Your task to perform on an android device: turn off wifi Image 0: 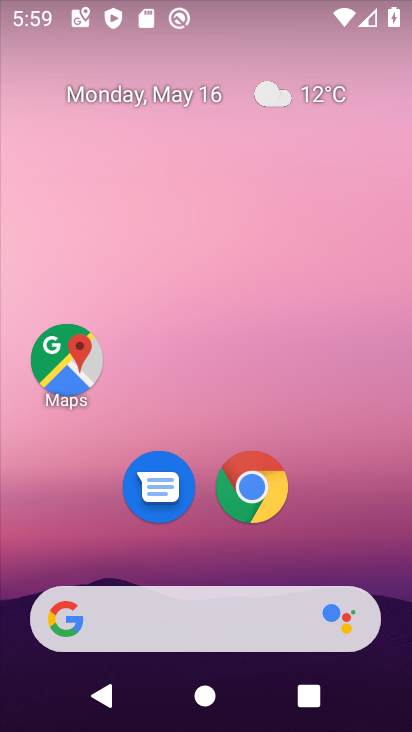
Step 0: drag from (348, 533) to (268, 112)
Your task to perform on an android device: turn off wifi Image 1: 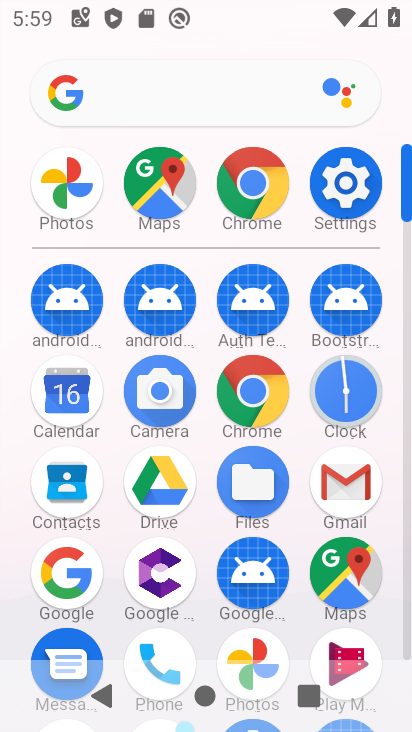
Step 1: click (339, 193)
Your task to perform on an android device: turn off wifi Image 2: 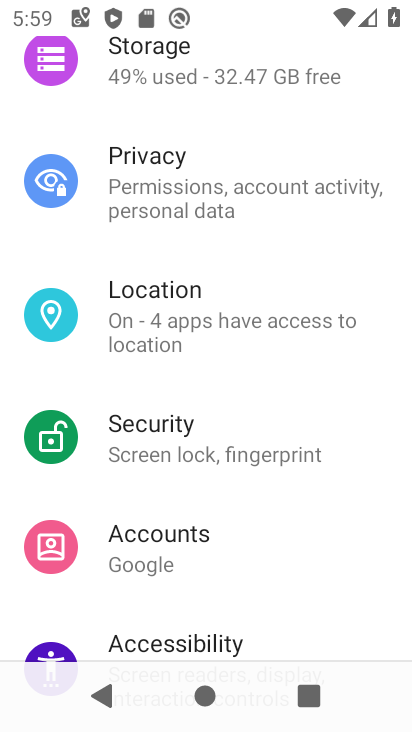
Step 2: drag from (236, 169) to (273, 525)
Your task to perform on an android device: turn off wifi Image 3: 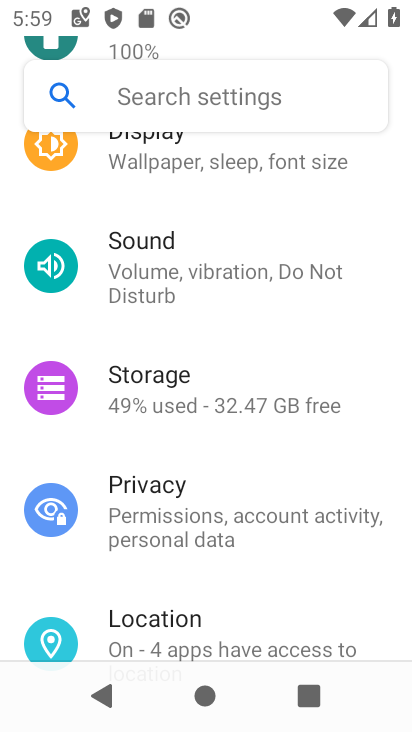
Step 3: drag from (234, 194) to (269, 537)
Your task to perform on an android device: turn off wifi Image 4: 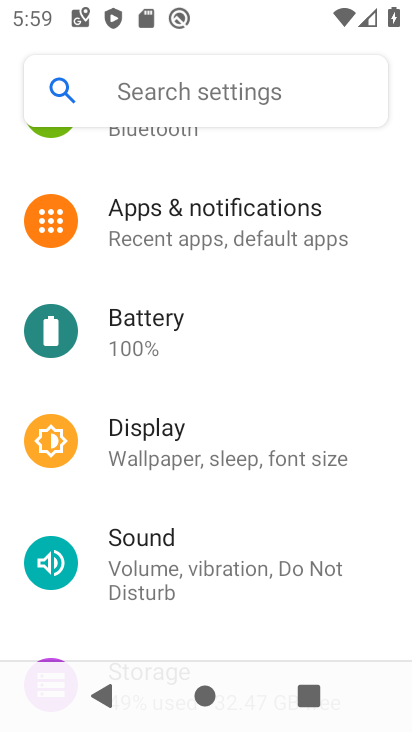
Step 4: drag from (204, 204) to (228, 539)
Your task to perform on an android device: turn off wifi Image 5: 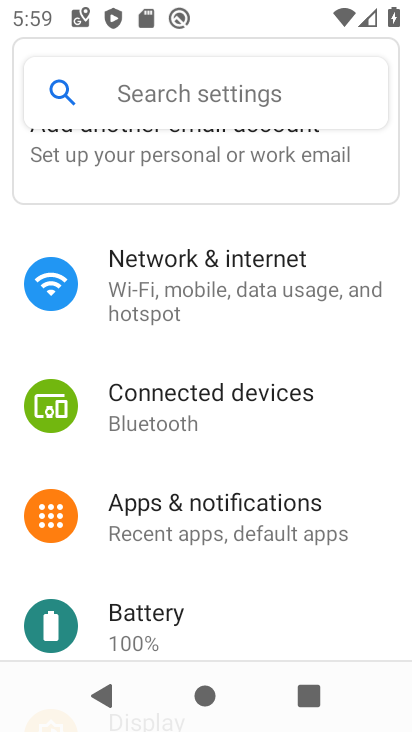
Step 5: click (186, 287)
Your task to perform on an android device: turn off wifi Image 6: 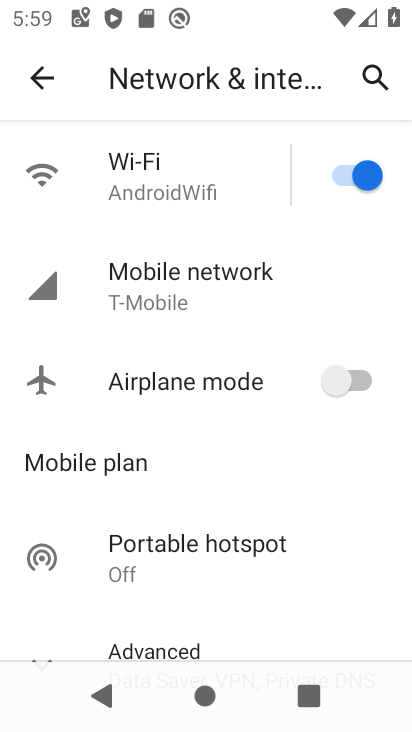
Step 6: click (352, 177)
Your task to perform on an android device: turn off wifi Image 7: 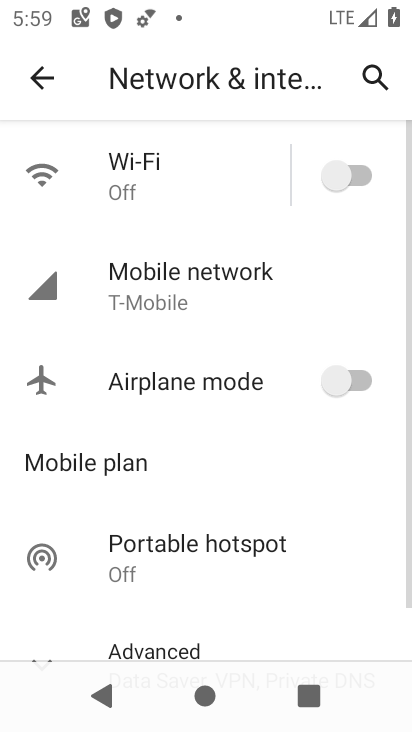
Step 7: task complete